Your task to perform on an android device: open device folders in google photos Image 0: 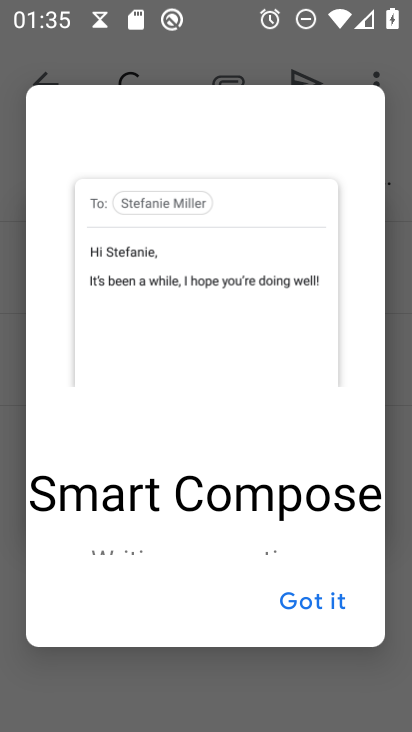
Step 0: press home button
Your task to perform on an android device: open device folders in google photos Image 1: 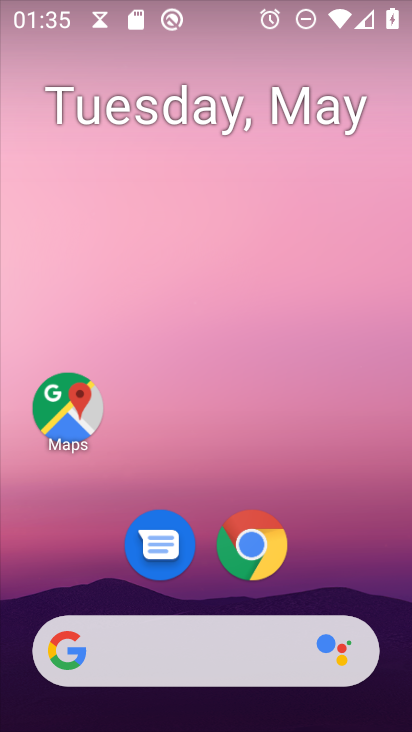
Step 1: drag from (324, 588) to (396, 0)
Your task to perform on an android device: open device folders in google photos Image 2: 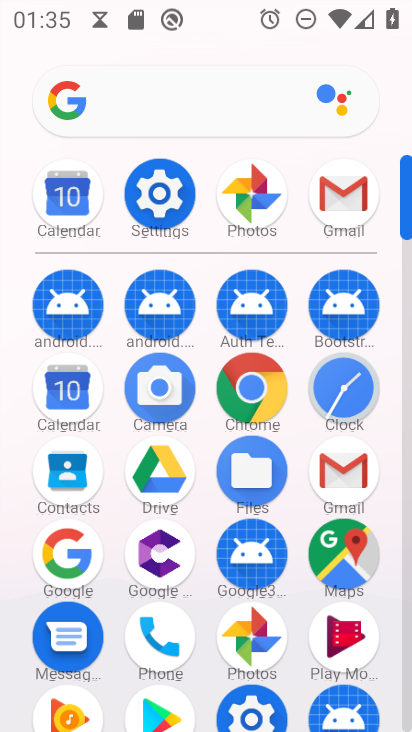
Step 2: click (244, 186)
Your task to perform on an android device: open device folders in google photos Image 3: 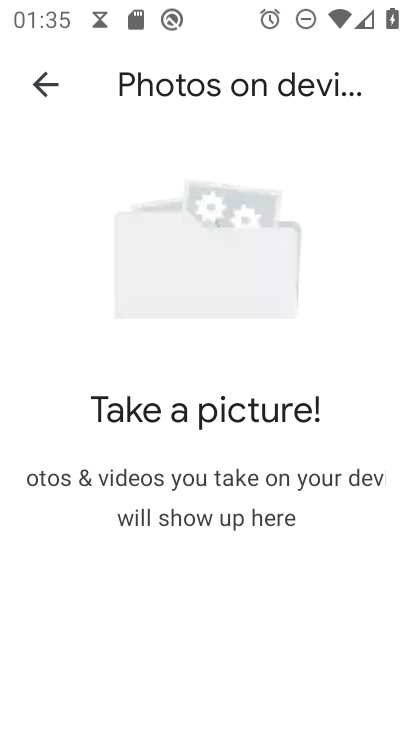
Step 3: click (45, 80)
Your task to perform on an android device: open device folders in google photos Image 4: 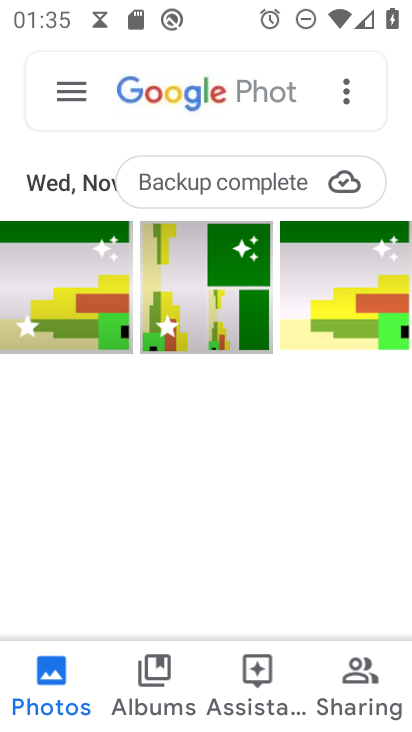
Step 4: click (85, 84)
Your task to perform on an android device: open device folders in google photos Image 5: 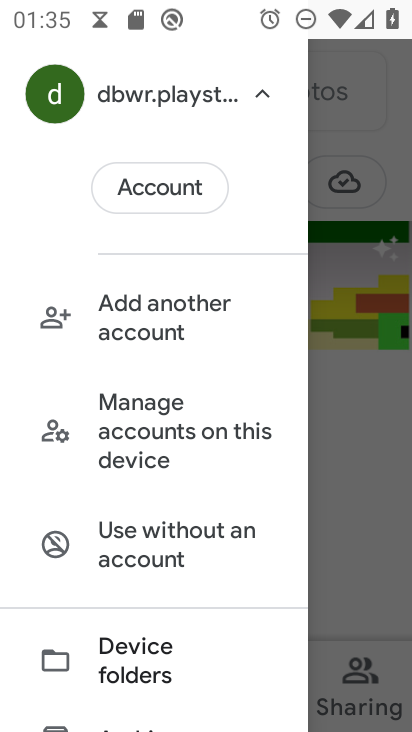
Step 5: click (179, 631)
Your task to perform on an android device: open device folders in google photos Image 6: 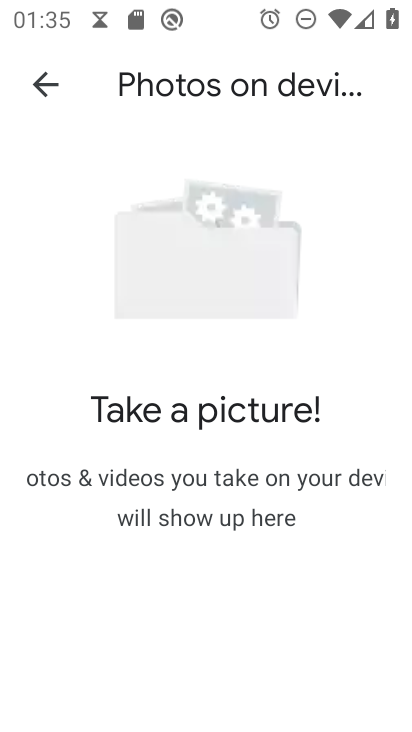
Step 6: task complete